Your task to perform on an android device: Go to Reddit.com Image 0: 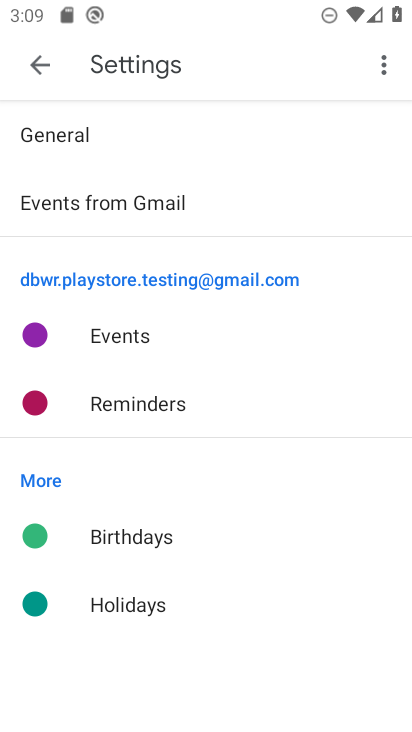
Step 0: press back button
Your task to perform on an android device: Go to Reddit.com Image 1: 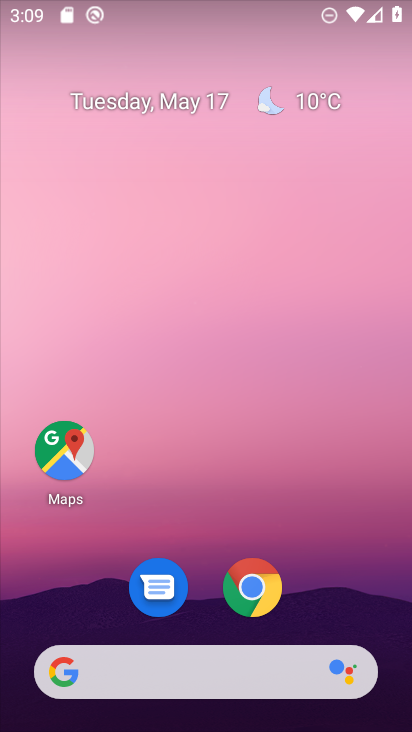
Step 1: drag from (302, 547) to (229, 33)
Your task to perform on an android device: Go to Reddit.com Image 2: 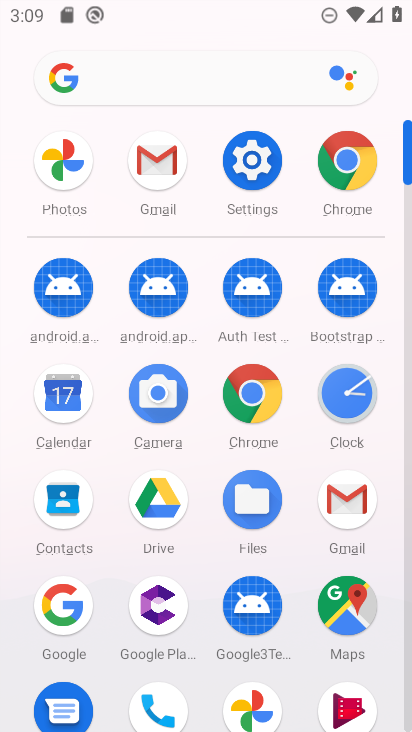
Step 2: click (249, 392)
Your task to perform on an android device: Go to Reddit.com Image 3: 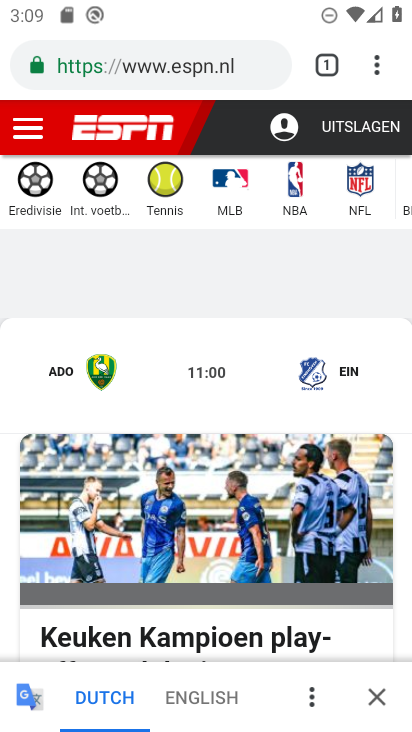
Step 3: click (205, 60)
Your task to perform on an android device: Go to Reddit.com Image 4: 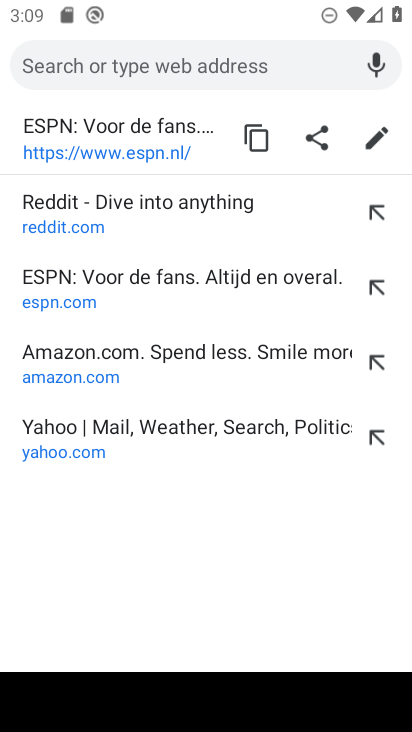
Step 4: type " Reddit.com"
Your task to perform on an android device: Go to Reddit.com Image 5: 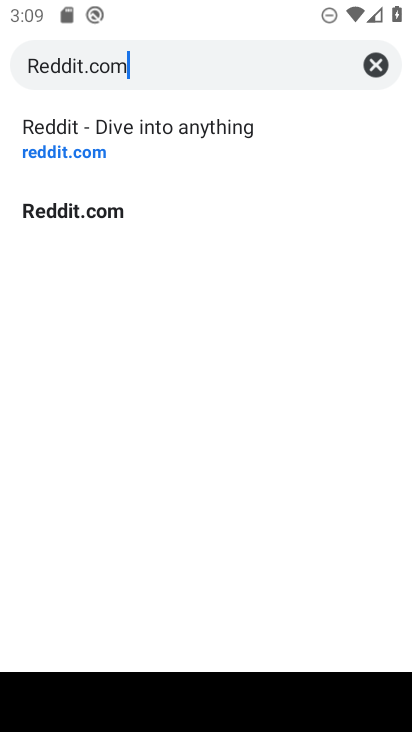
Step 5: type ""
Your task to perform on an android device: Go to Reddit.com Image 6: 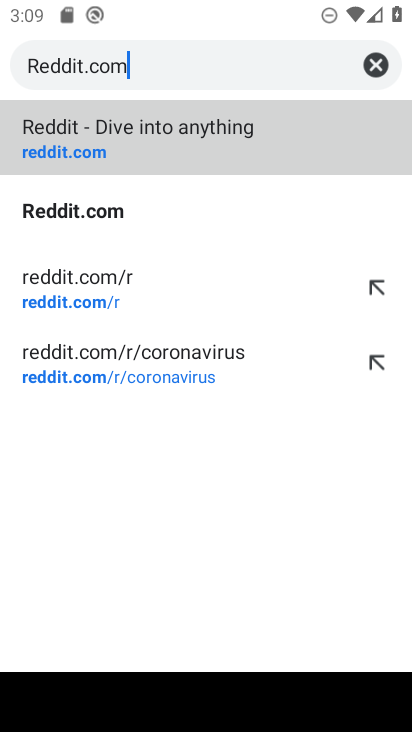
Step 6: click (171, 130)
Your task to perform on an android device: Go to Reddit.com Image 7: 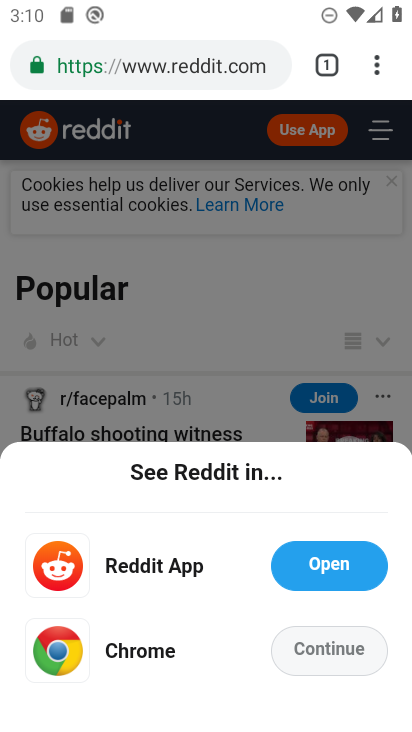
Step 7: task complete